Your task to perform on an android device: allow cookies in the chrome app Image 0: 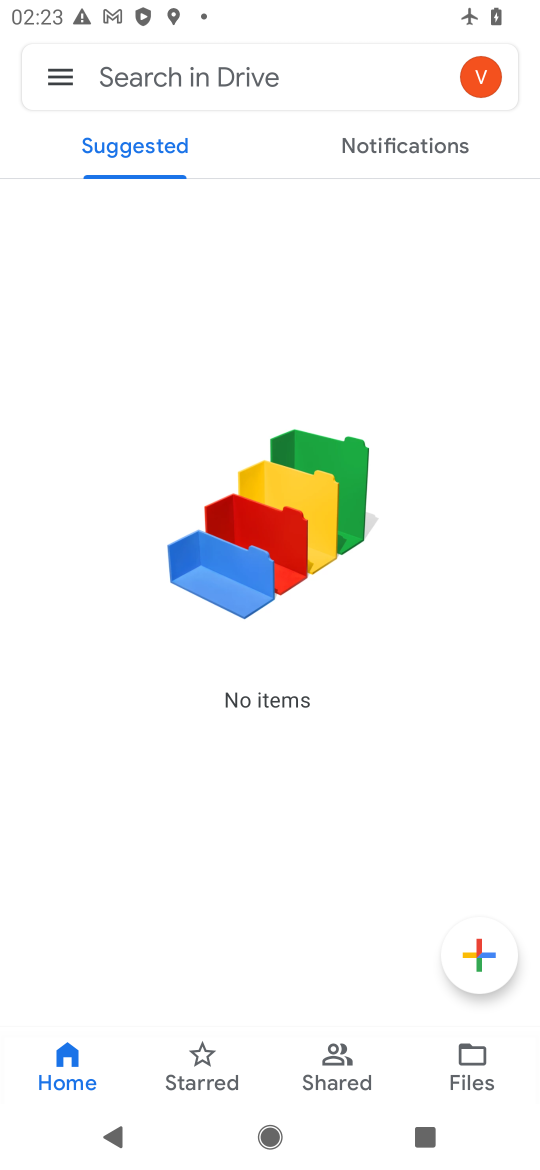
Step 0: press home button
Your task to perform on an android device: allow cookies in the chrome app Image 1: 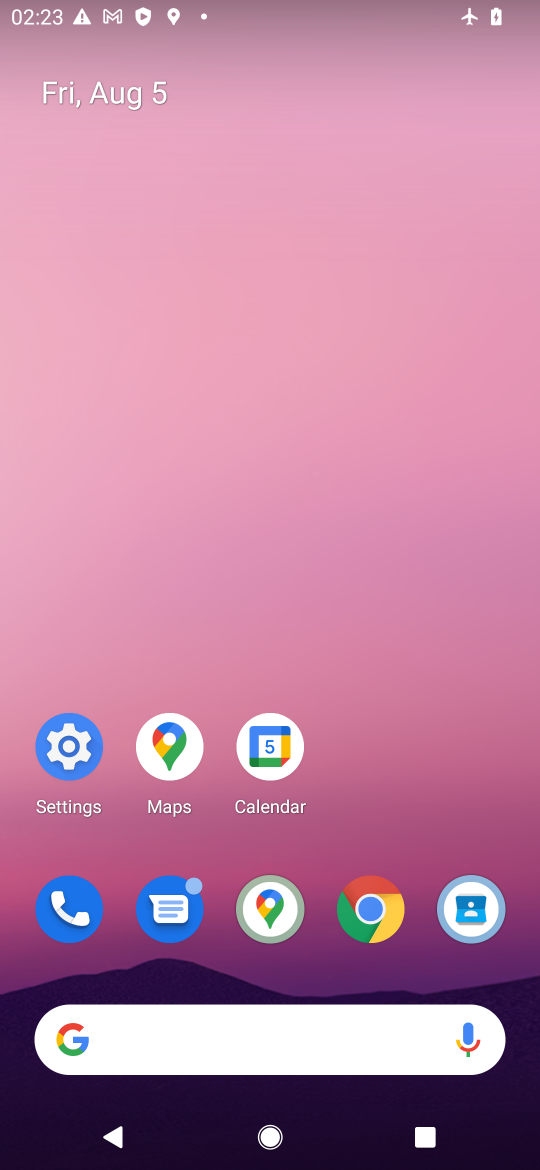
Step 1: click (372, 914)
Your task to perform on an android device: allow cookies in the chrome app Image 2: 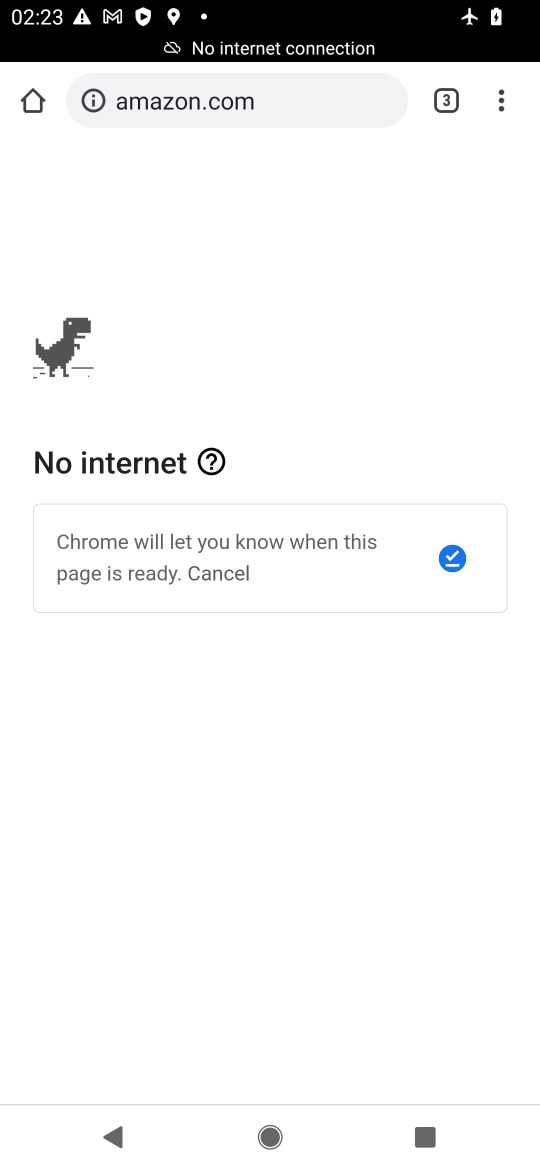
Step 2: click (503, 108)
Your task to perform on an android device: allow cookies in the chrome app Image 3: 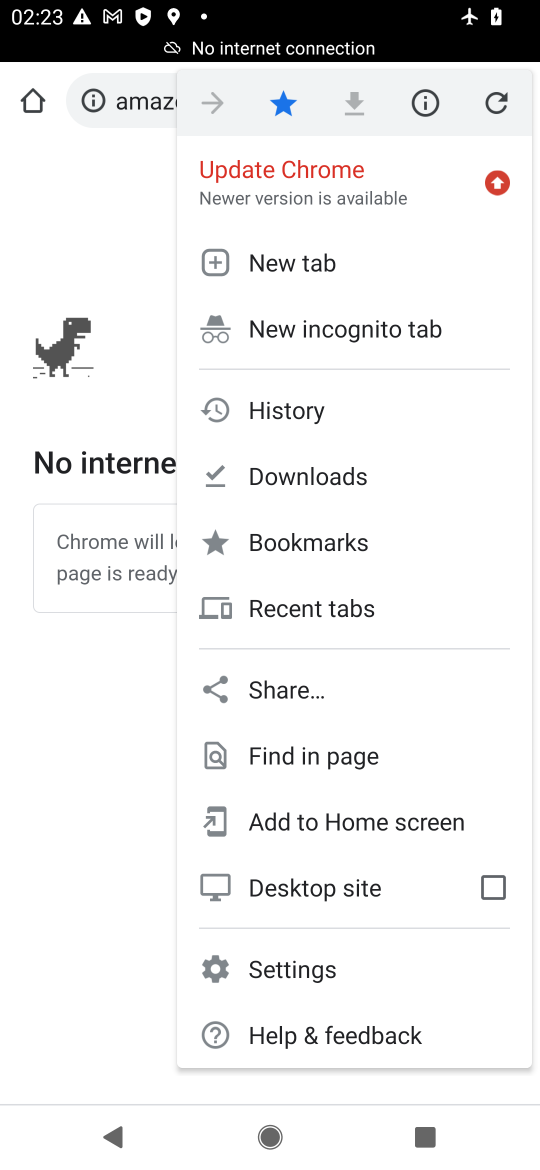
Step 3: click (305, 969)
Your task to perform on an android device: allow cookies in the chrome app Image 4: 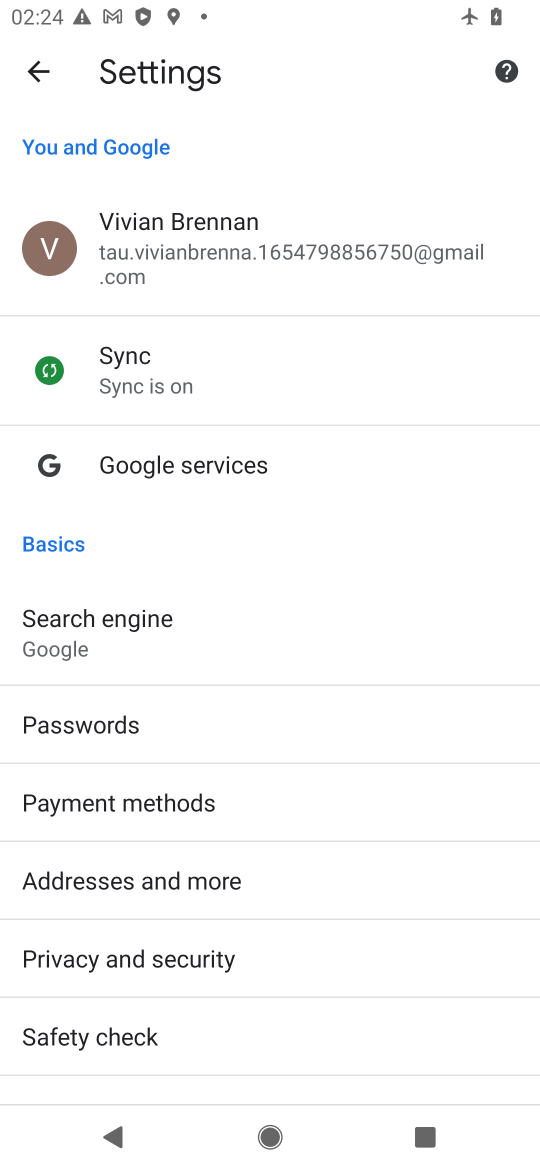
Step 4: drag from (298, 984) to (298, 490)
Your task to perform on an android device: allow cookies in the chrome app Image 5: 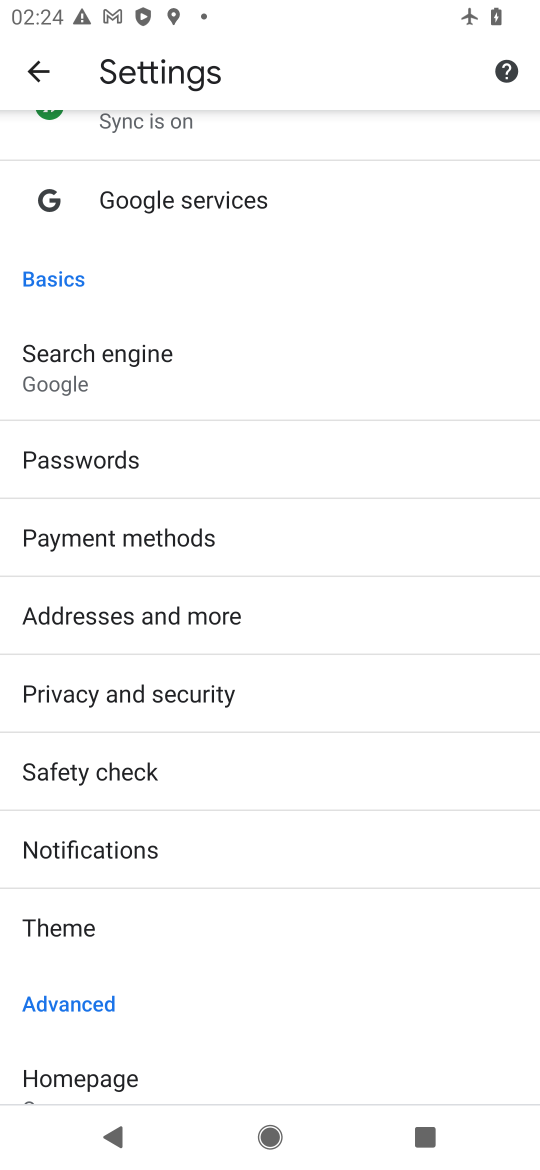
Step 5: drag from (243, 931) to (219, 515)
Your task to perform on an android device: allow cookies in the chrome app Image 6: 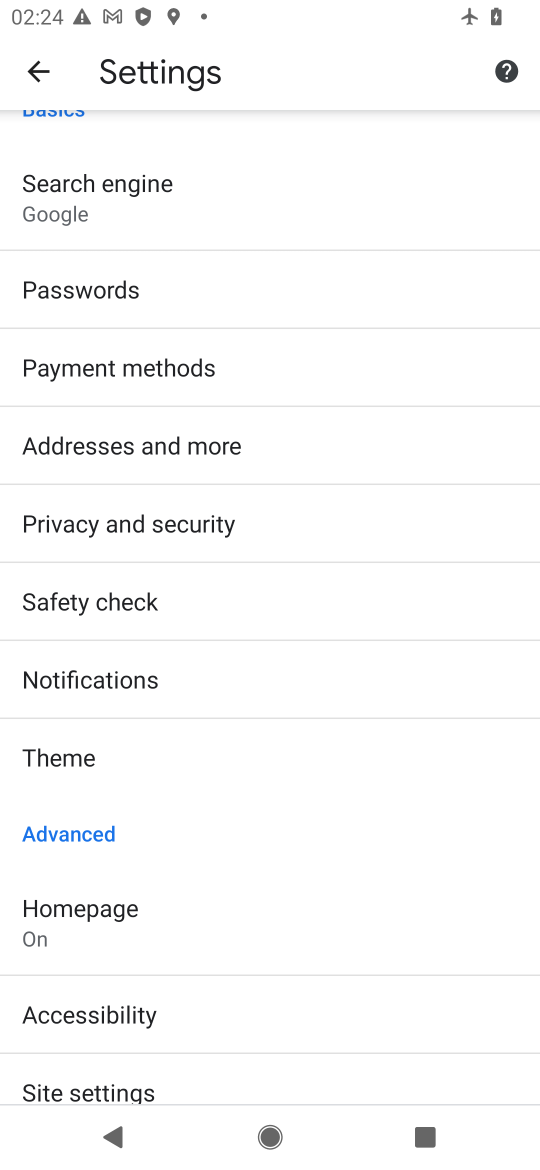
Step 6: drag from (185, 992) to (205, 579)
Your task to perform on an android device: allow cookies in the chrome app Image 7: 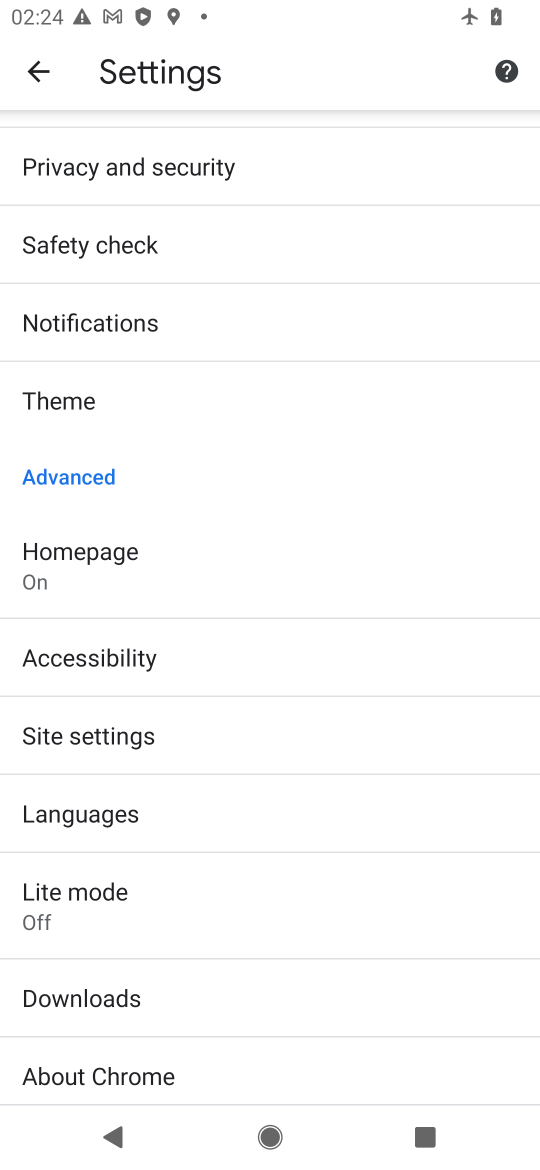
Step 7: click (93, 728)
Your task to perform on an android device: allow cookies in the chrome app Image 8: 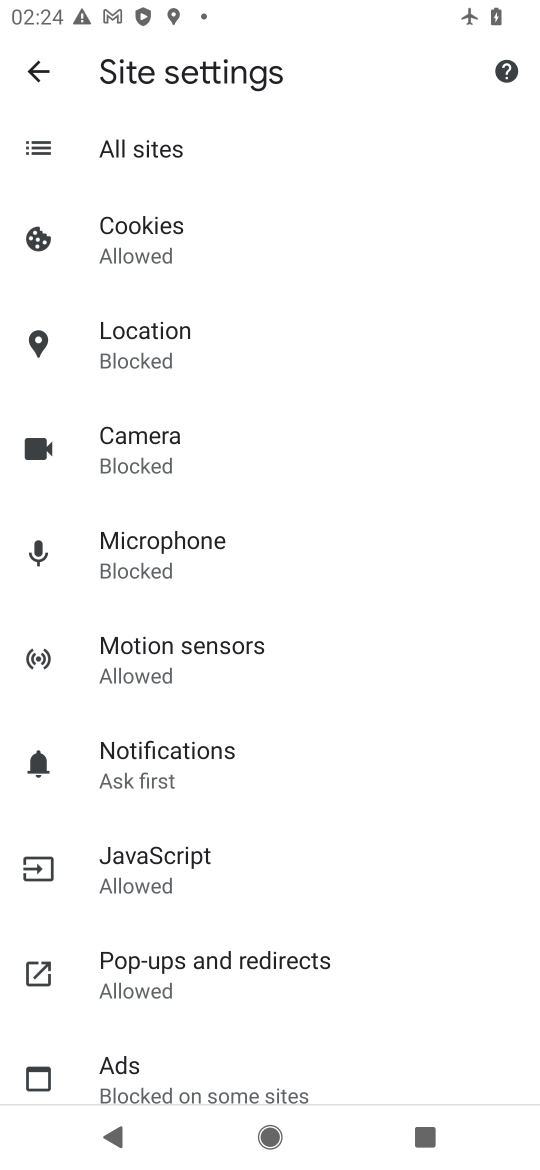
Step 8: click (142, 227)
Your task to perform on an android device: allow cookies in the chrome app Image 9: 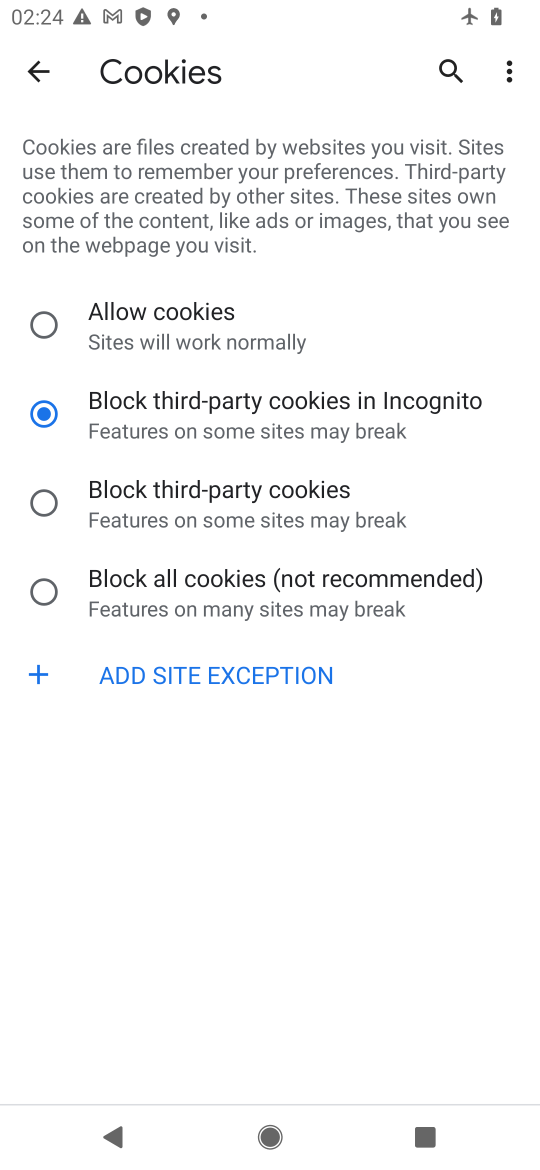
Step 9: click (48, 320)
Your task to perform on an android device: allow cookies in the chrome app Image 10: 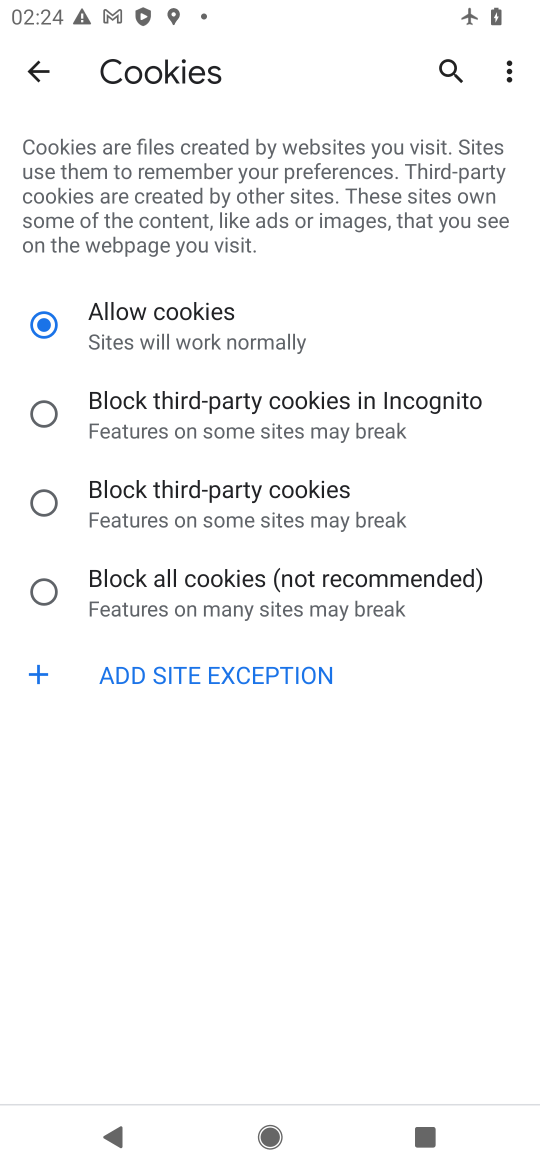
Step 10: task complete